Your task to perform on an android device: turn on bluetooth scan Image 0: 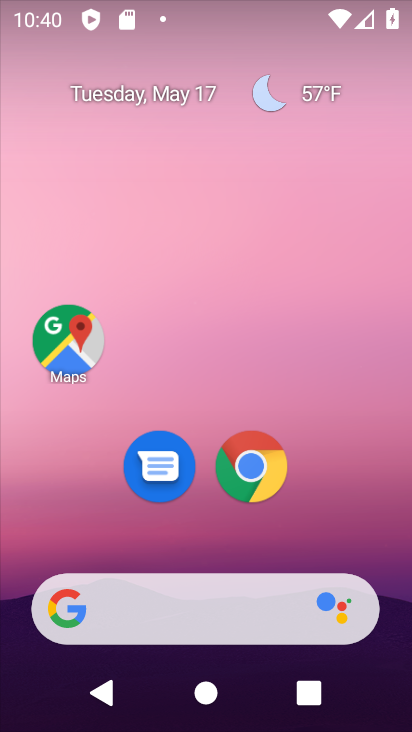
Step 0: drag from (207, 583) to (205, 94)
Your task to perform on an android device: turn on bluetooth scan Image 1: 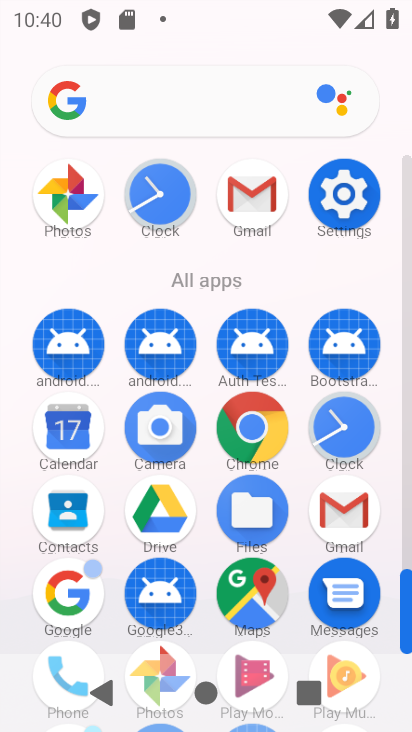
Step 1: click (336, 192)
Your task to perform on an android device: turn on bluetooth scan Image 2: 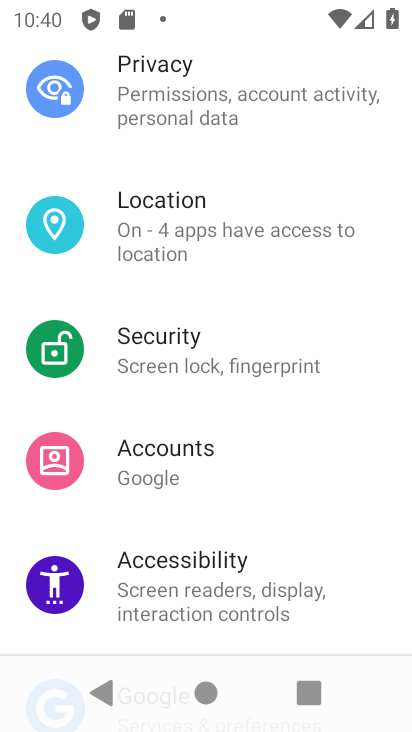
Step 2: click (195, 235)
Your task to perform on an android device: turn on bluetooth scan Image 3: 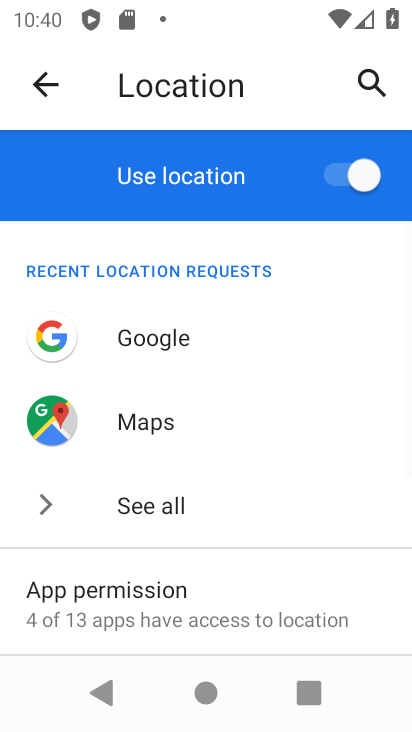
Step 3: drag from (180, 622) to (218, 280)
Your task to perform on an android device: turn on bluetooth scan Image 4: 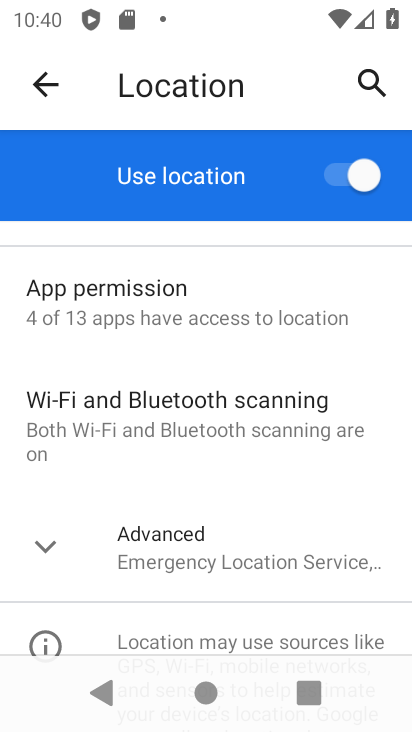
Step 4: click (176, 555)
Your task to perform on an android device: turn on bluetooth scan Image 5: 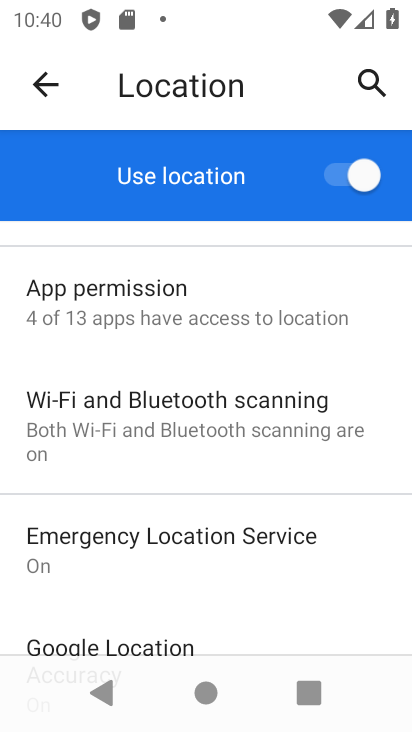
Step 5: press back button
Your task to perform on an android device: turn on bluetooth scan Image 6: 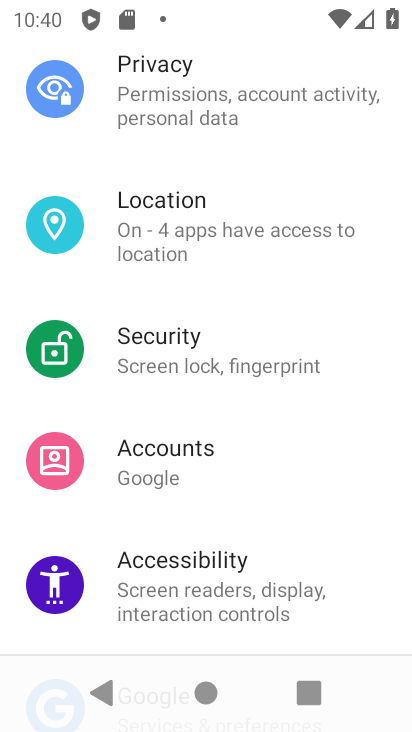
Step 6: click (165, 233)
Your task to perform on an android device: turn on bluetooth scan Image 7: 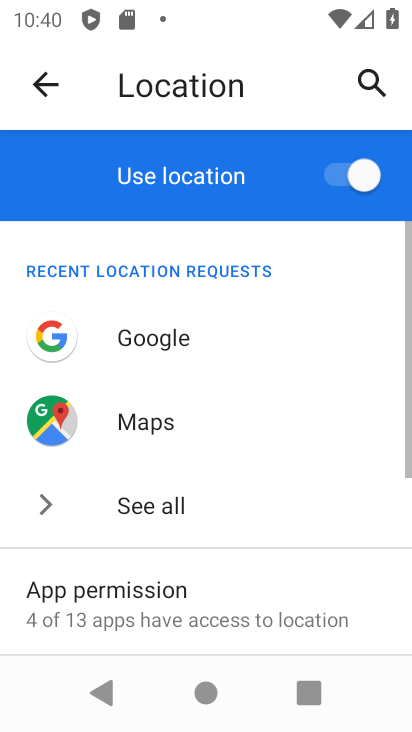
Step 7: drag from (212, 626) to (231, 300)
Your task to perform on an android device: turn on bluetooth scan Image 8: 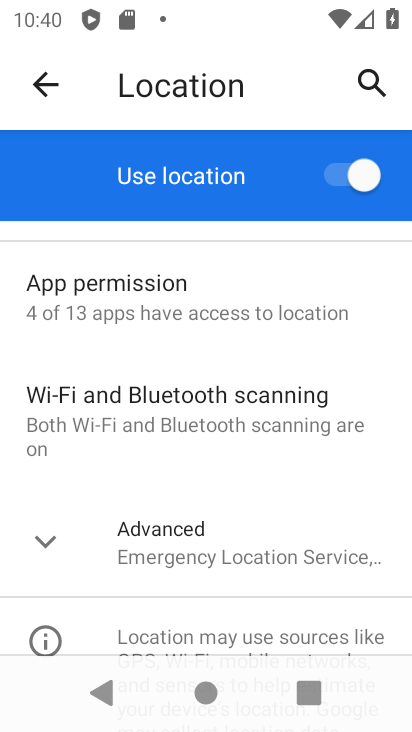
Step 8: click (204, 414)
Your task to perform on an android device: turn on bluetooth scan Image 9: 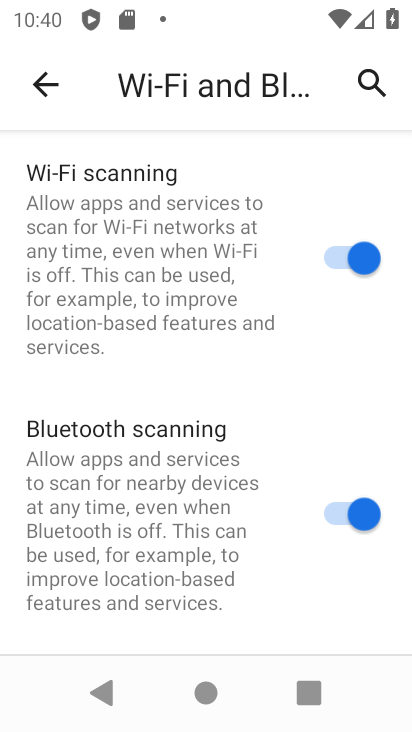
Step 9: task complete